Your task to perform on an android device: turn off picture-in-picture Image 0: 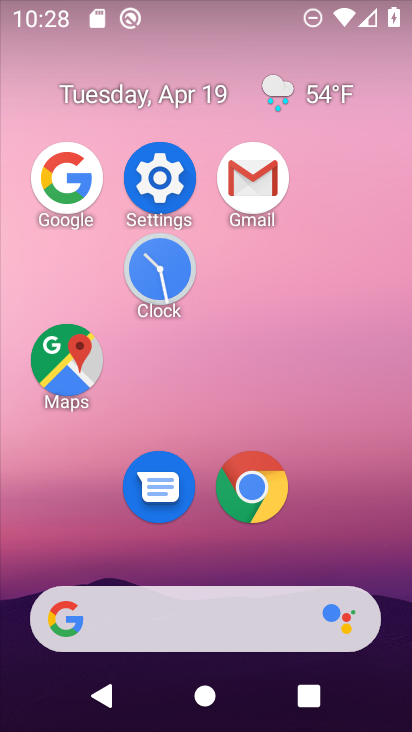
Step 0: click (264, 486)
Your task to perform on an android device: turn off picture-in-picture Image 1: 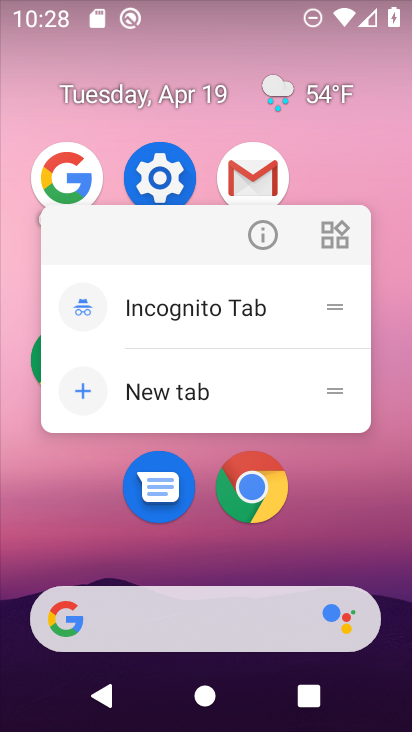
Step 1: click (263, 240)
Your task to perform on an android device: turn off picture-in-picture Image 2: 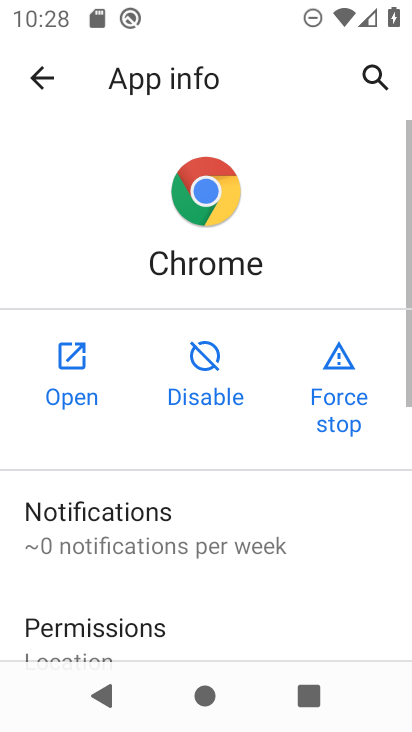
Step 2: drag from (267, 607) to (251, 118)
Your task to perform on an android device: turn off picture-in-picture Image 3: 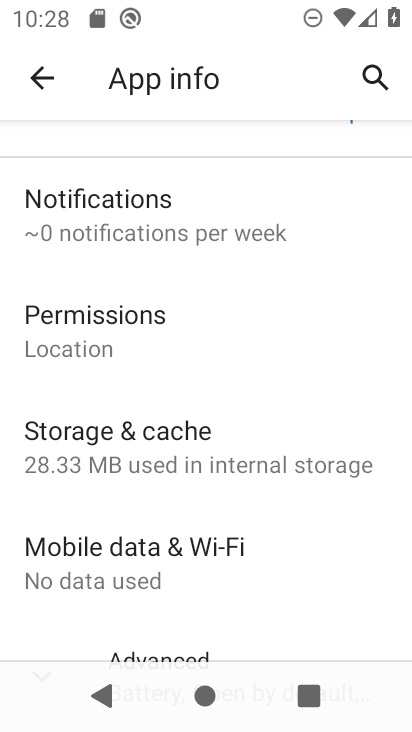
Step 3: drag from (219, 566) to (263, 106)
Your task to perform on an android device: turn off picture-in-picture Image 4: 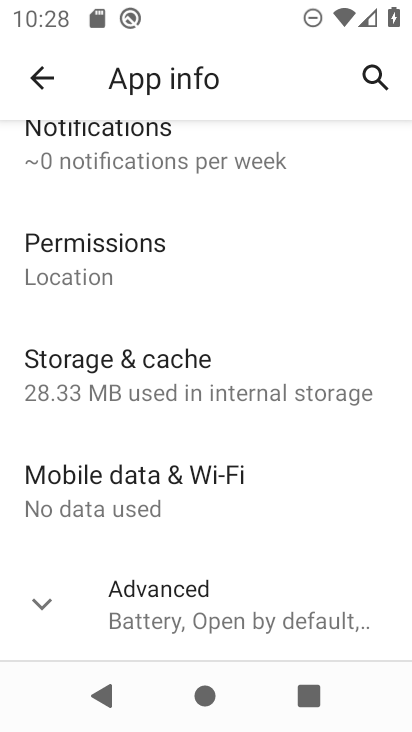
Step 4: click (190, 604)
Your task to perform on an android device: turn off picture-in-picture Image 5: 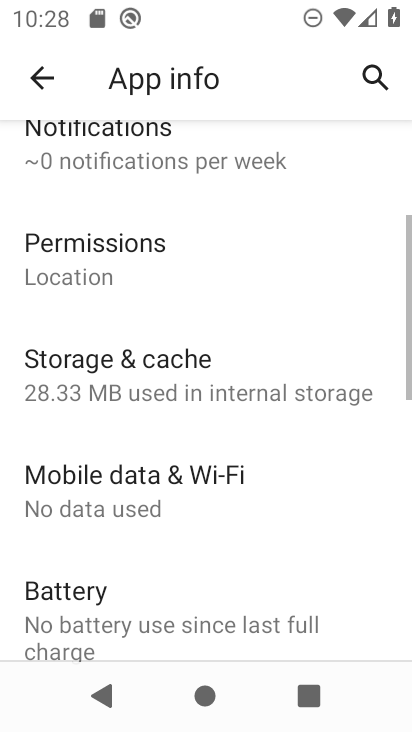
Step 5: drag from (190, 604) to (223, 188)
Your task to perform on an android device: turn off picture-in-picture Image 6: 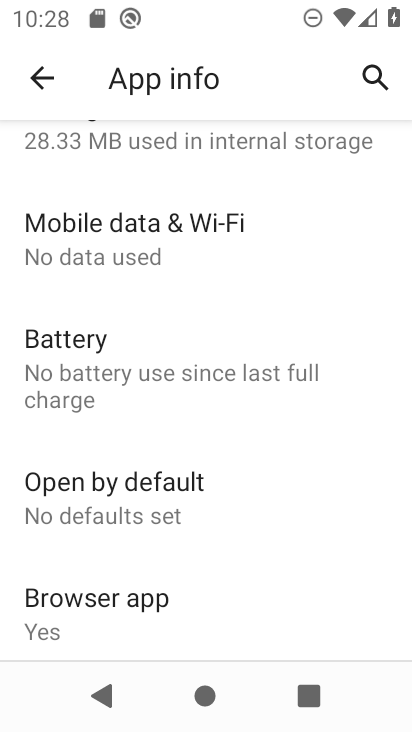
Step 6: drag from (187, 601) to (204, 172)
Your task to perform on an android device: turn off picture-in-picture Image 7: 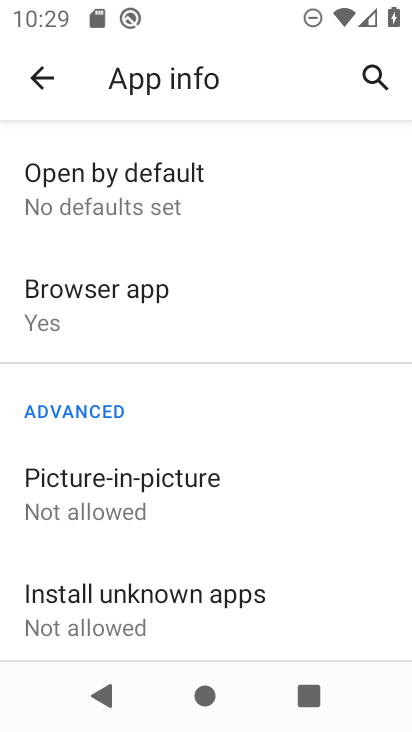
Step 7: click (224, 489)
Your task to perform on an android device: turn off picture-in-picture Image 8: 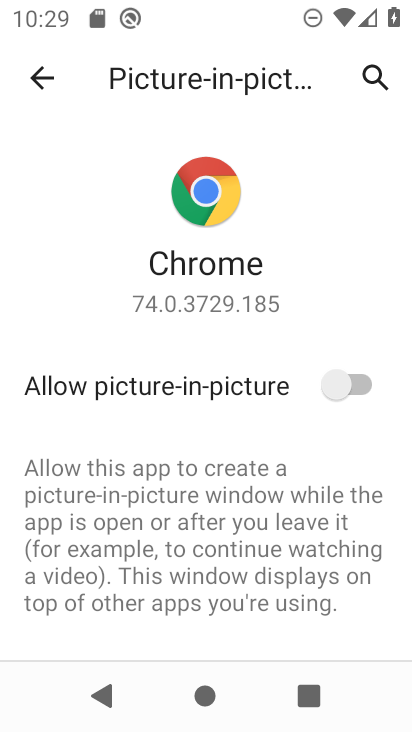
Step 8: task complete